Your task to perform on an android device: Go to location settings Image 0: 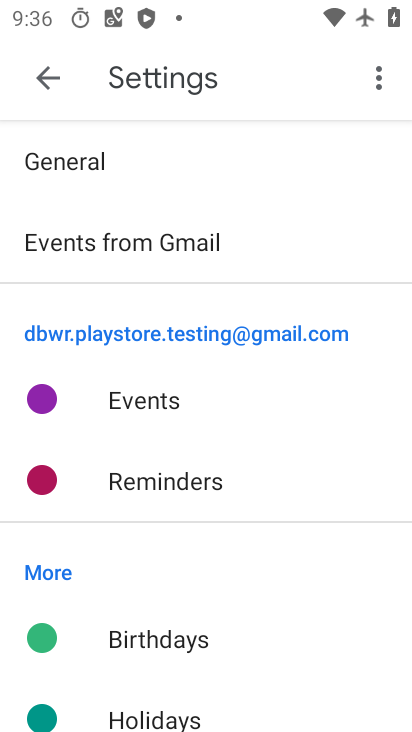
Step 0: press home button
Your task to perform on an android device: Go to location settings Image 1: 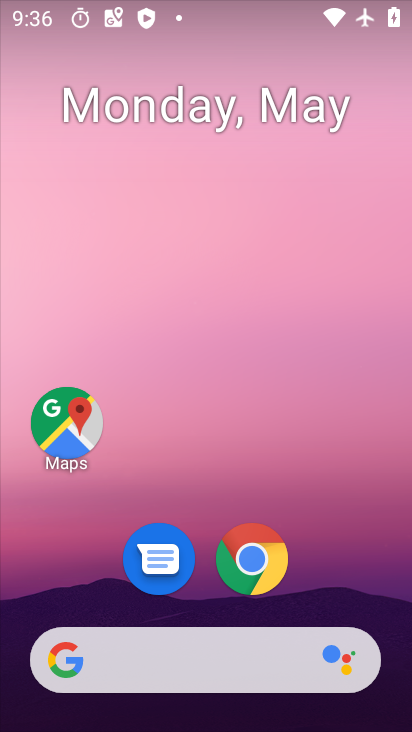
Step 1: drag from (355, 603) to (257, 74)
Your task to perform on an android device: Go to location settings Image 2: 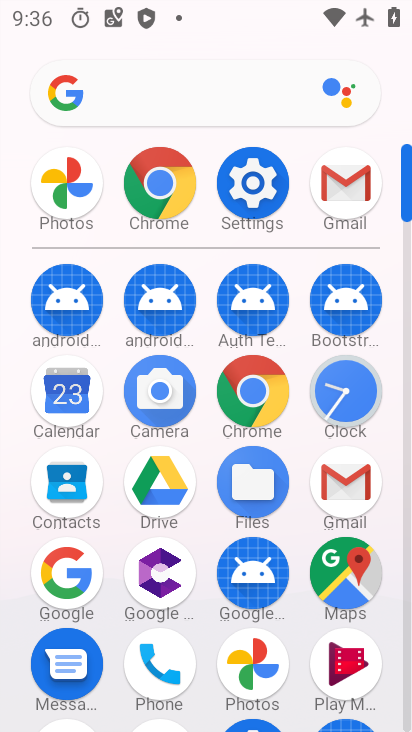
Step 2: click (239, 192)
Your task to perform on an android device: Go to location settings Image 3: 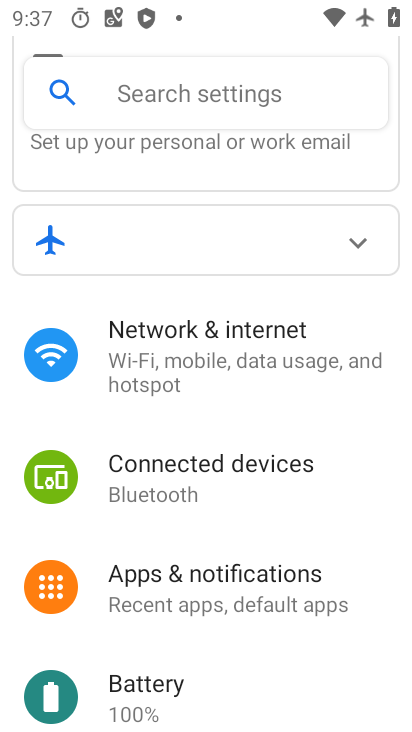
Step 3: drag from (169, 697) to (155, 340)
Your task to perform on an android device: Go to location settings Image 4: 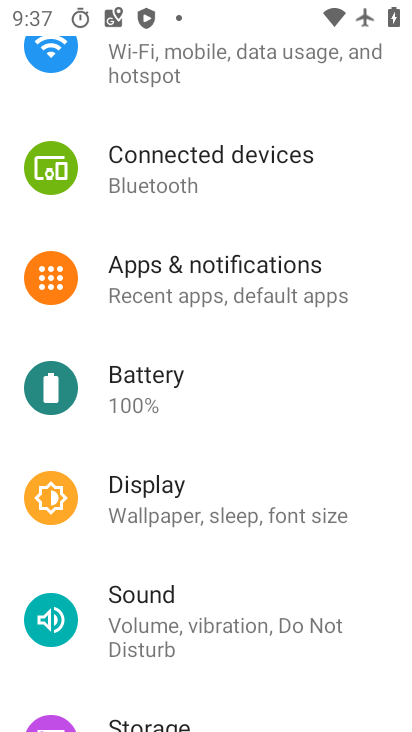
Step 4: drag from (184, 614) to (180, 407)
Your task to perform on an android device: Go to location settings Image 5: 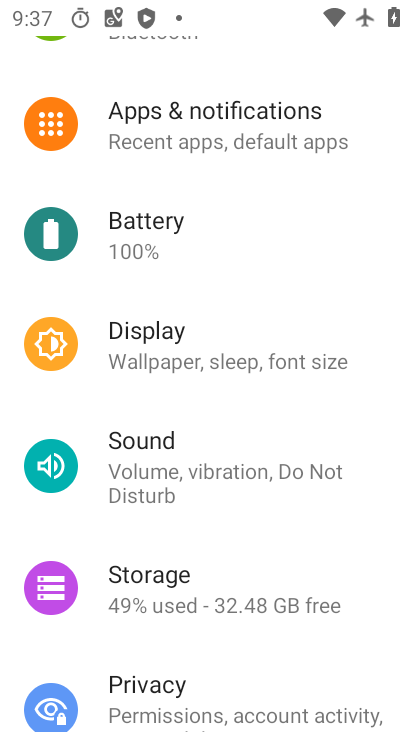
Step 5: drag from (159, 491) to (161, 456)
Your task to perform on an android device: Go to location settings Image 6: 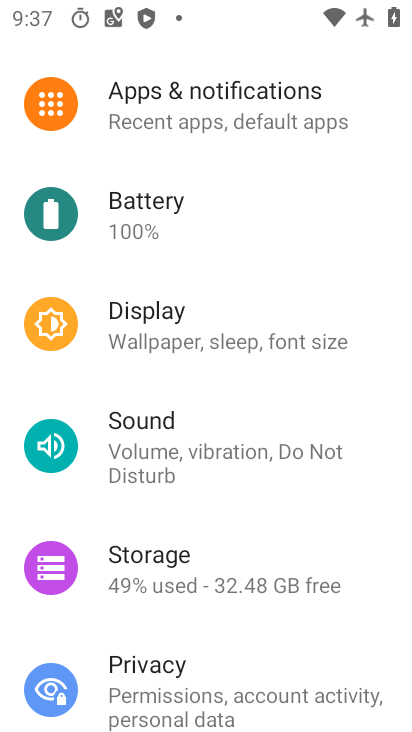
Step 6: drag from (195, 657) to (193, 474)
Your task to perform on an android device: Go to location settings Image 7: 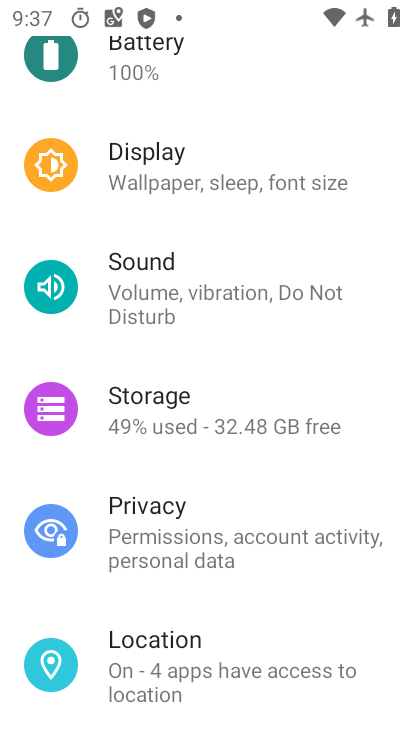
Step 7: click (207, 658)
Your task to perform on an android device: Go to location settings Image 8: 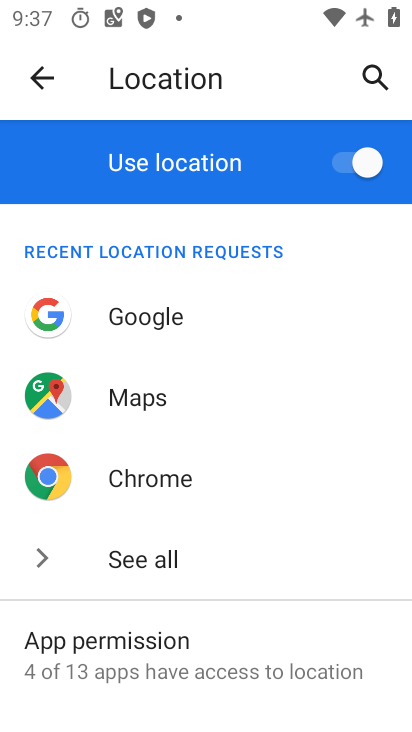
Step 8: task complete